Your task to perform on an android device: Show me productivity apps on the Play Store Image 0: 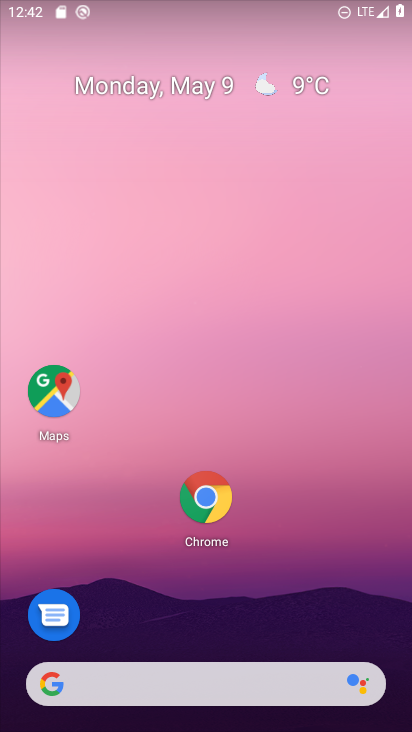
Step 0: drag from (322, 559) to (331, 59)
Your task to perform on an android device: Show me productivity apps on the Play Store Image 1: 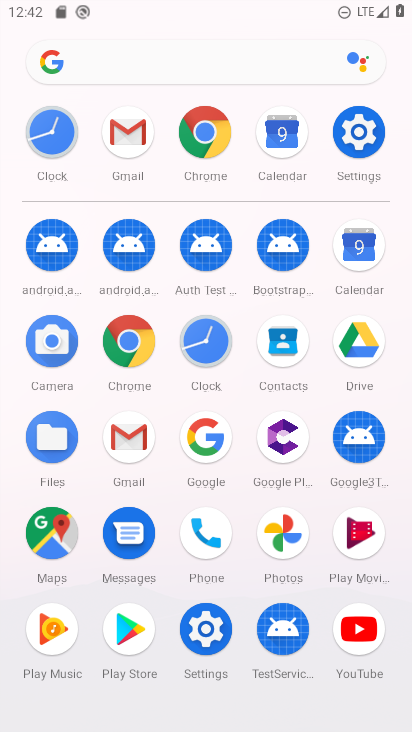
Step 1: click (102, 639)
Your task to perform on an android device: Show me productivity apps on the Play Store Image 2: 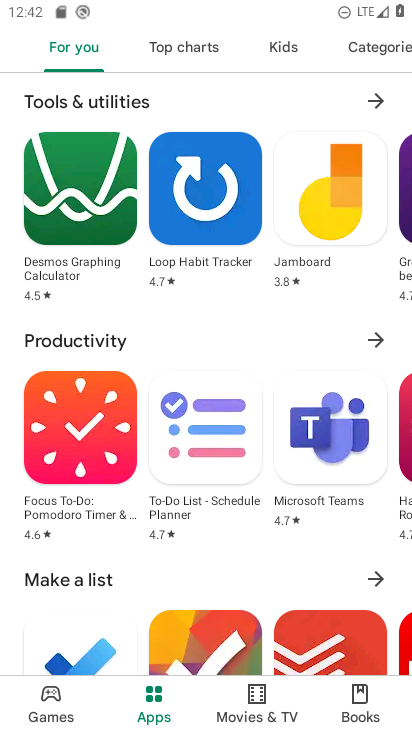
Step 2: task complete